Your task to perform on an android device: Empty the shopping cart on newegg.com. Search for "logitech g502" on newegg.com, select the first entry, add it to the cart, then select checkout. Image 0: 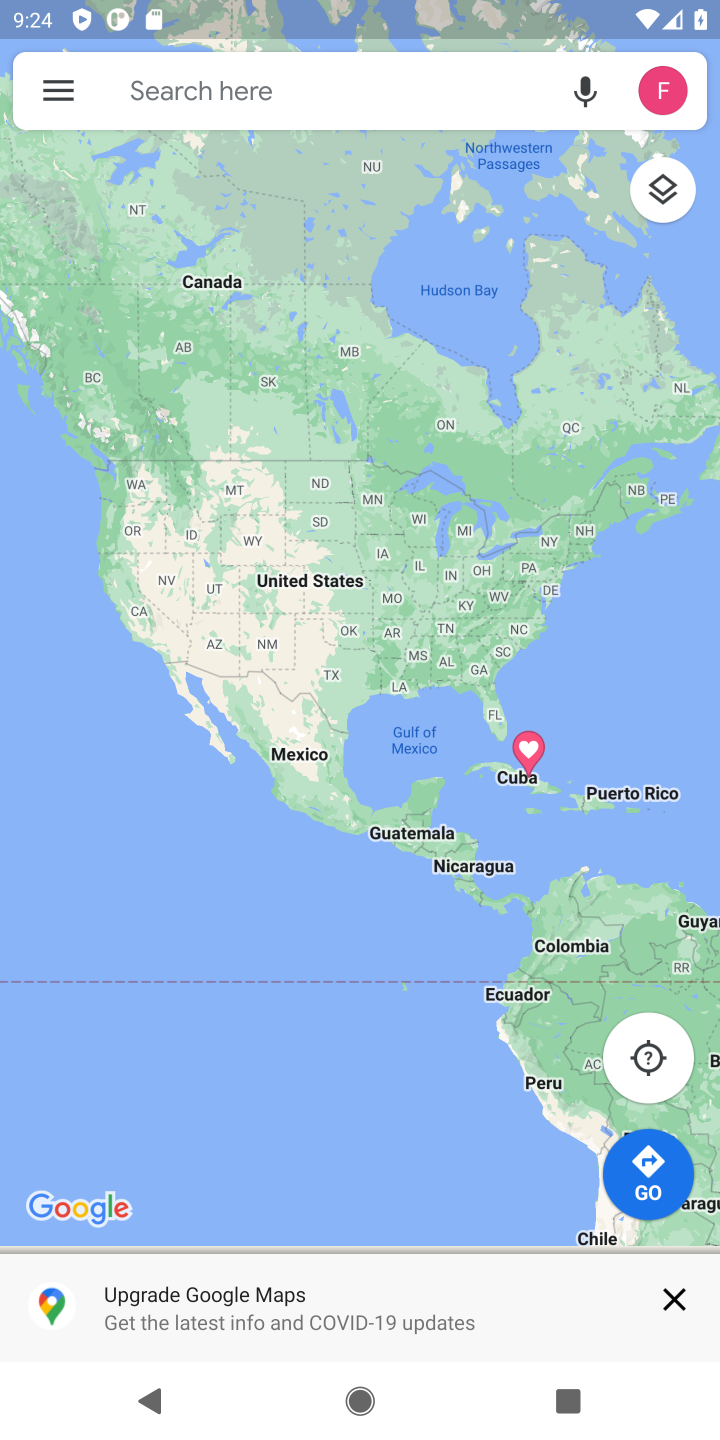
Step 0: press home button
Your task to perform on an android device: Empty the shopping cart on newegg.com. Search for "logitech g502" on newegg.com, select the first entry, add it to the cart, then select checkout. Image 1: 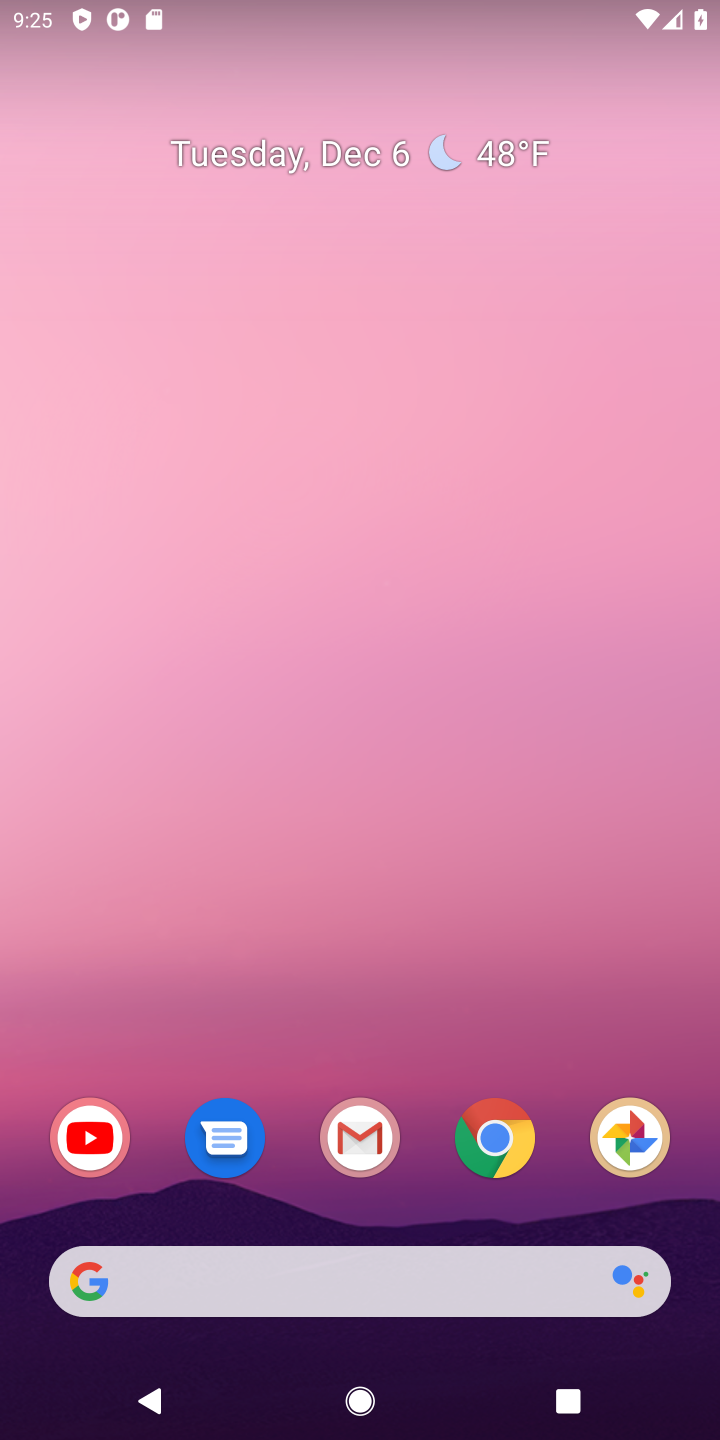
Step 1: click (509, 1142)
Your task to perform on an android device: Empty the shopping cart on newegg.com. Search for "logitech g502" on newegg.com, select the first entry, add it to the cart, then select checkout. Image 2: 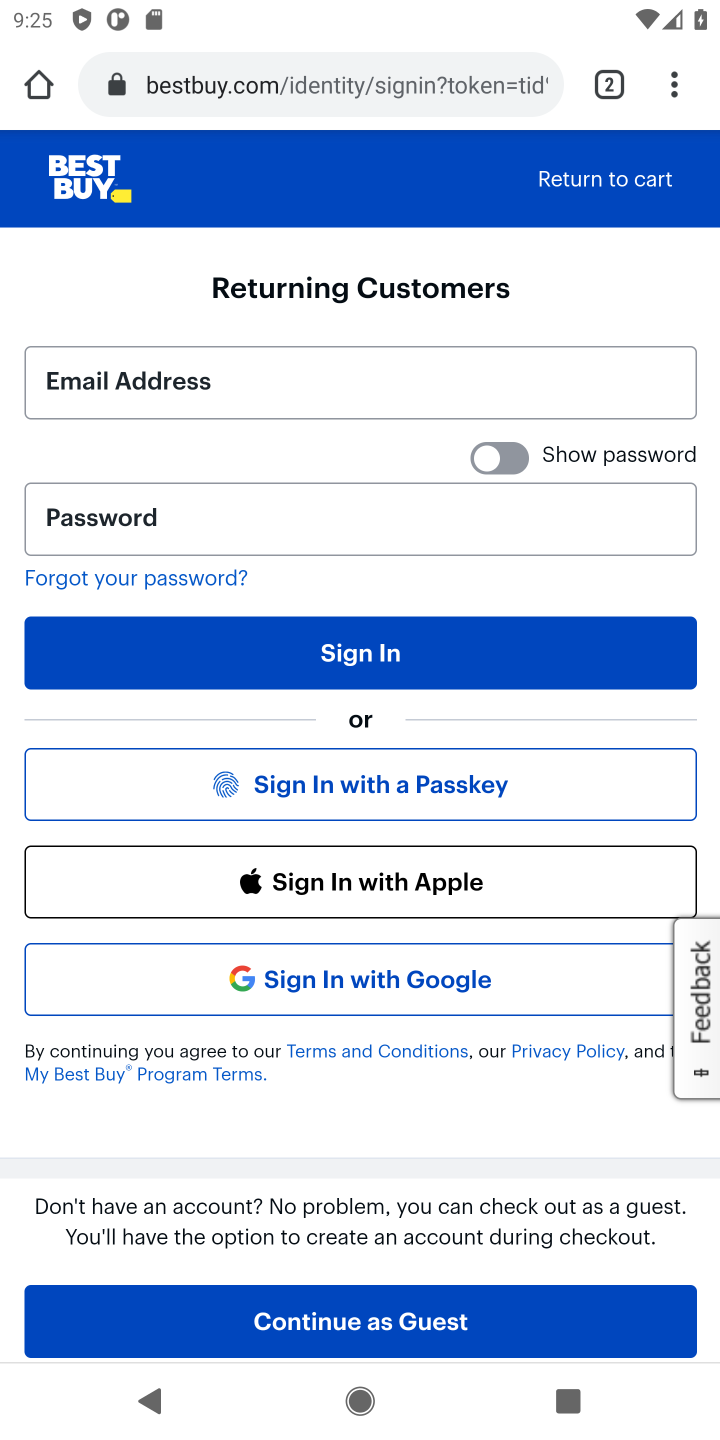
Step 2: click (253, 98)
Your task to perform on an android device: Empty the shopping cart on newegg.com. Search for "logitech g502" on newegg.com, select the first entry, add it to the cart, then select checkout. Image 3: 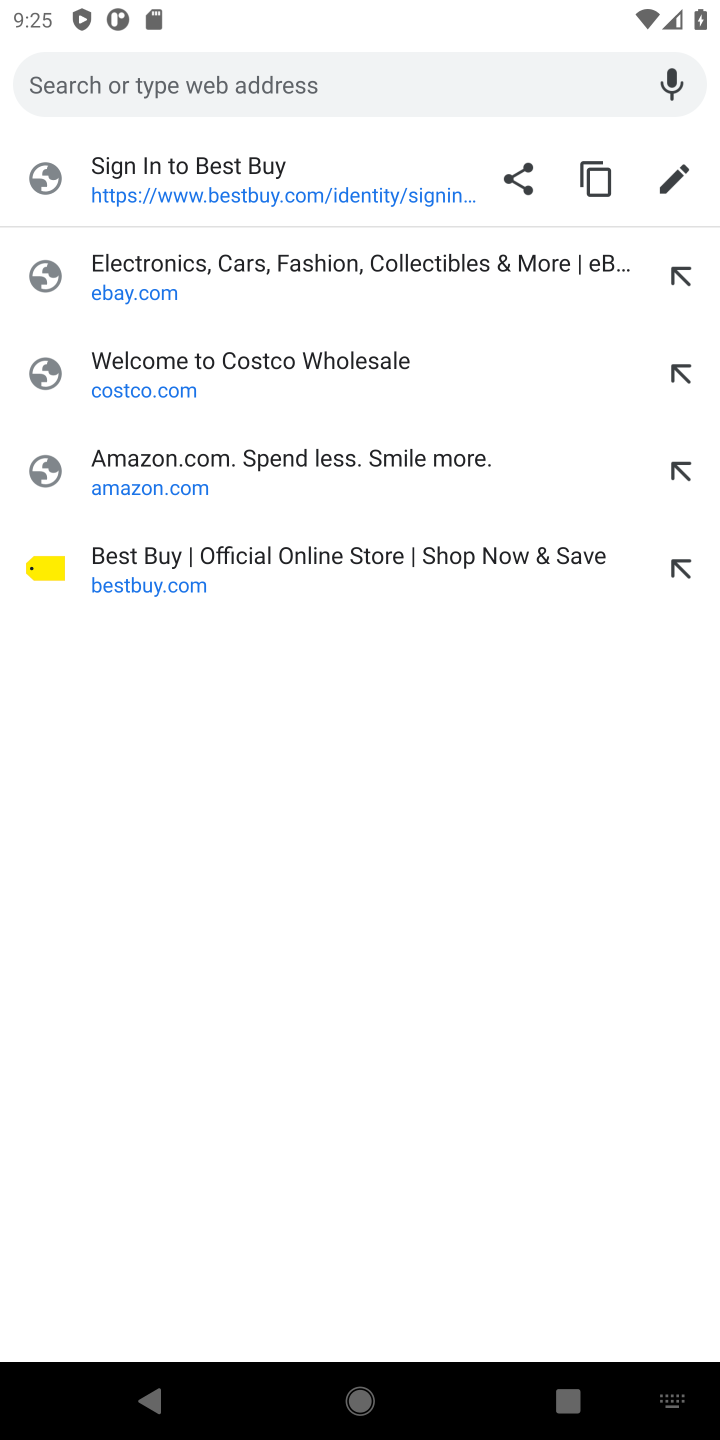
Step 3: type "newegg.com"
Your task to perform on an android device: Empty the shopping cart on newegg.com. Search for "logitech g502" on newegg.com, select the first entry, add it to the cart, then select checkout. Image 4: 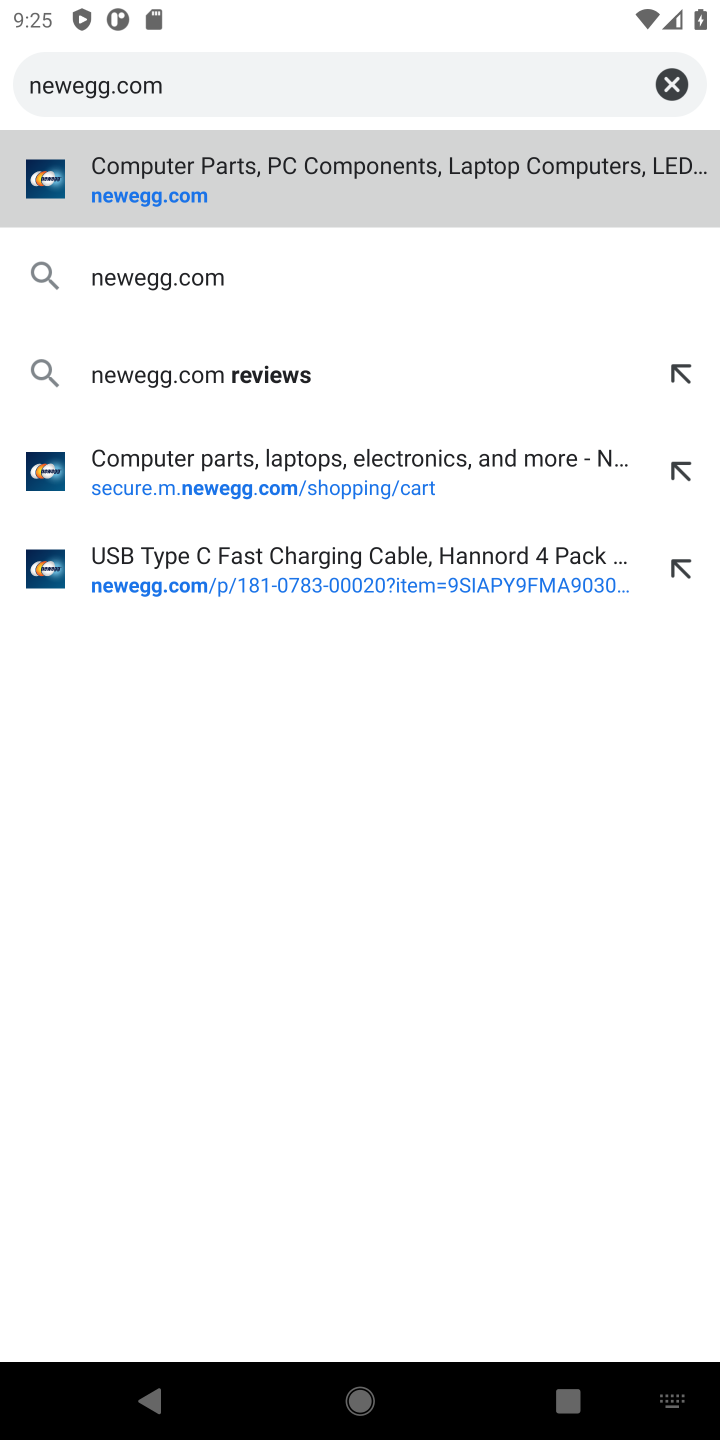
Step 4: click (140, 195)
Your task to perform on an android device: Empty the shopping cart on newegg.com. Search for "logitech g502" on newegg.com, select the first entry, add it to the cart, then select checkout. Image 5: 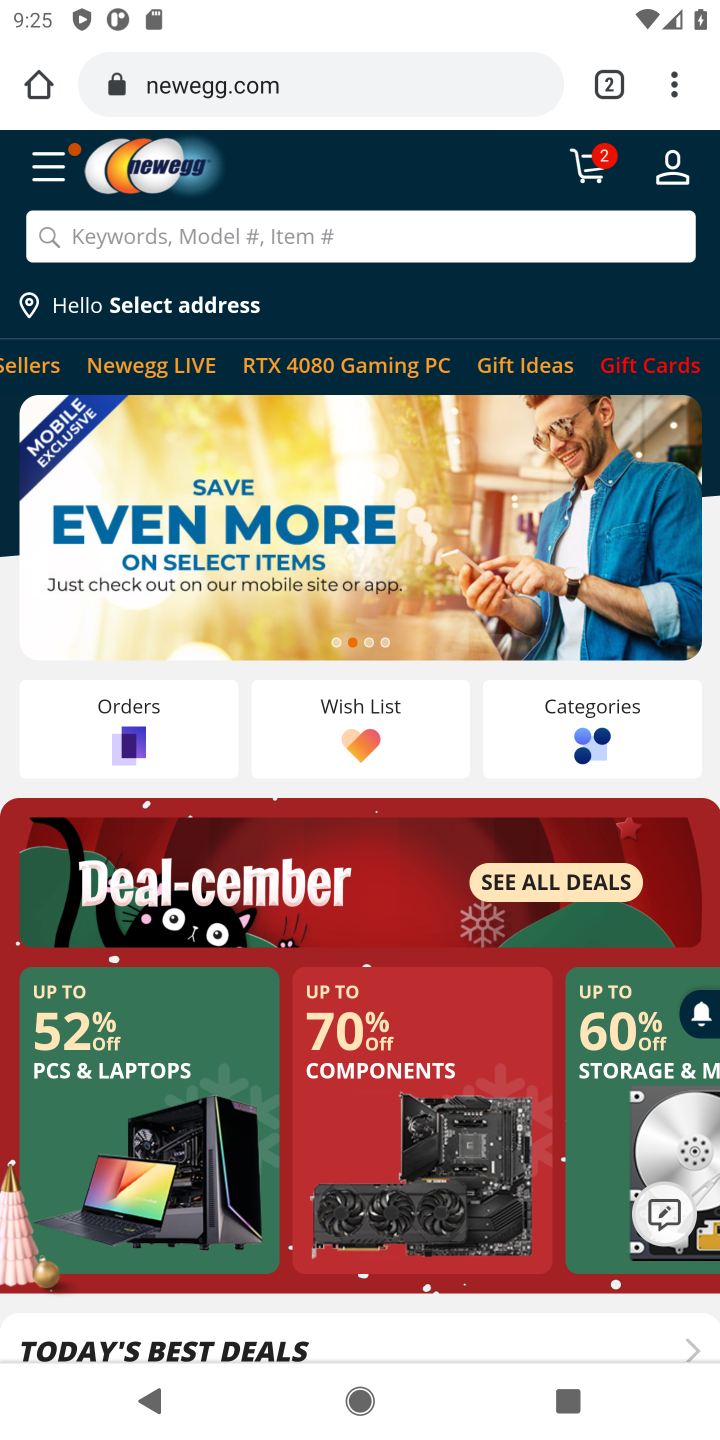
Step 5: click (588, 179)
Your task to perform on an android device: Empty the shopping cart on newegg.com. Search for "logitech g502" on newegg.com, select the first entry, add it to the cart, then select checkout. Image 6: 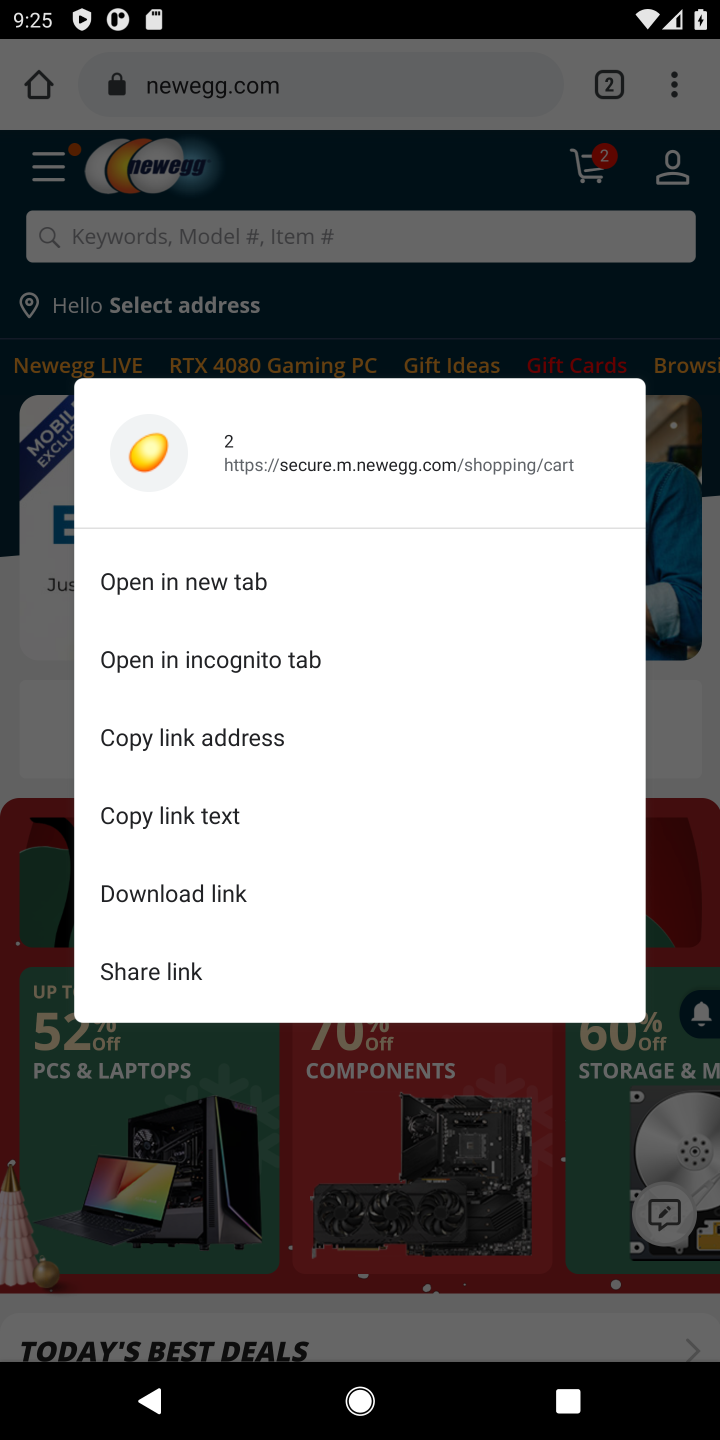
Step 6: click (588, 179)
Your task to perform on an android device: Empty the shopping cart on newegg.com. Search for "logitech g502" on newegg.com, select the first entry, add it to the cart, then select checkout. Image 7: 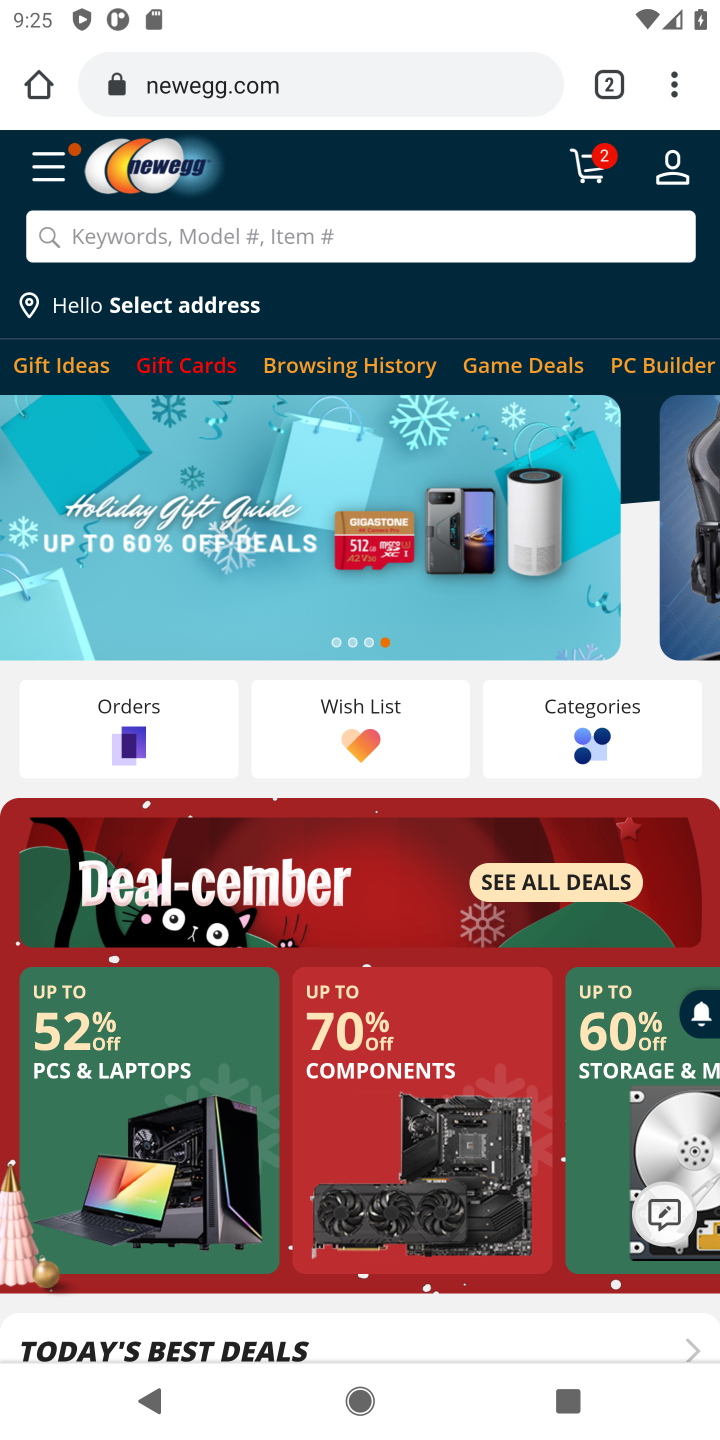
Step 7: click (590, 162)
Your task to perform on an android device: Empty the shopping cart on newegg.com. Search for "logitech g502" on newegg.com, select the first entry, add it to the cart, then select checkout. Image 8: 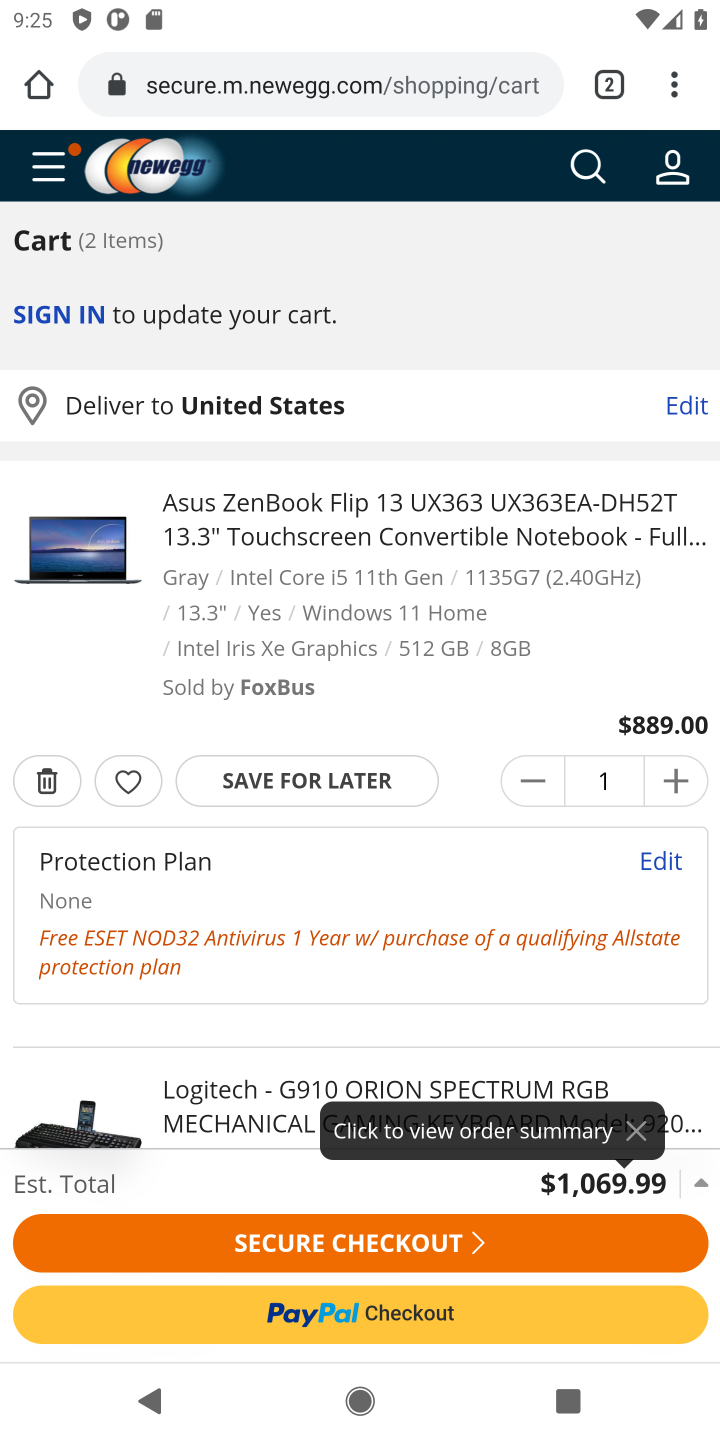
Step 8: click (45, 784)
Your task to perform on an android device: Empty the shopping cart on newegg.com. Search for "logitech g502" on newegg.com, select the first entry, add it to the cart, then select checkout. Image 9: 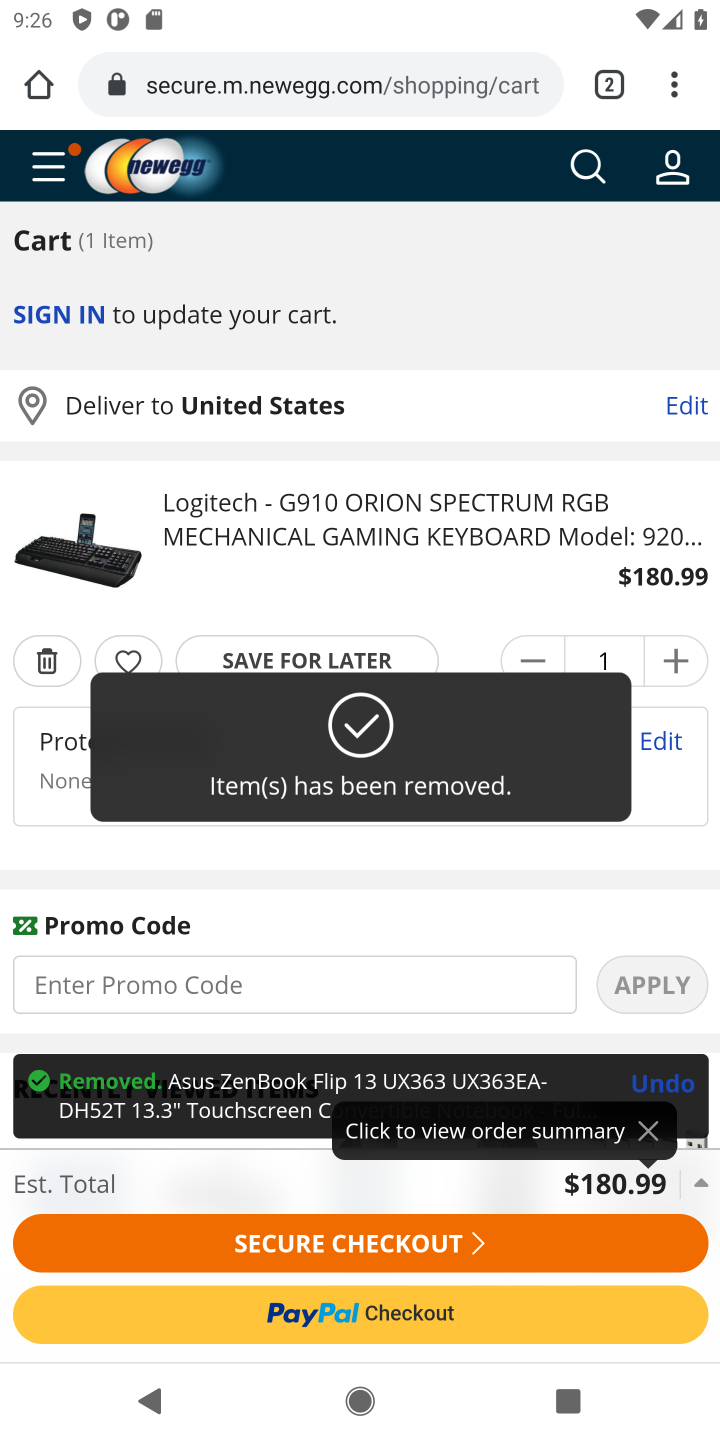
Step 9: click (52, 675)
Your task to perform on an android device: Empty the shopping cart on newegg.com. Search for "logitech g502" on newegg.com, select the first entry, add it to the cart, then select checkout. Image 10: 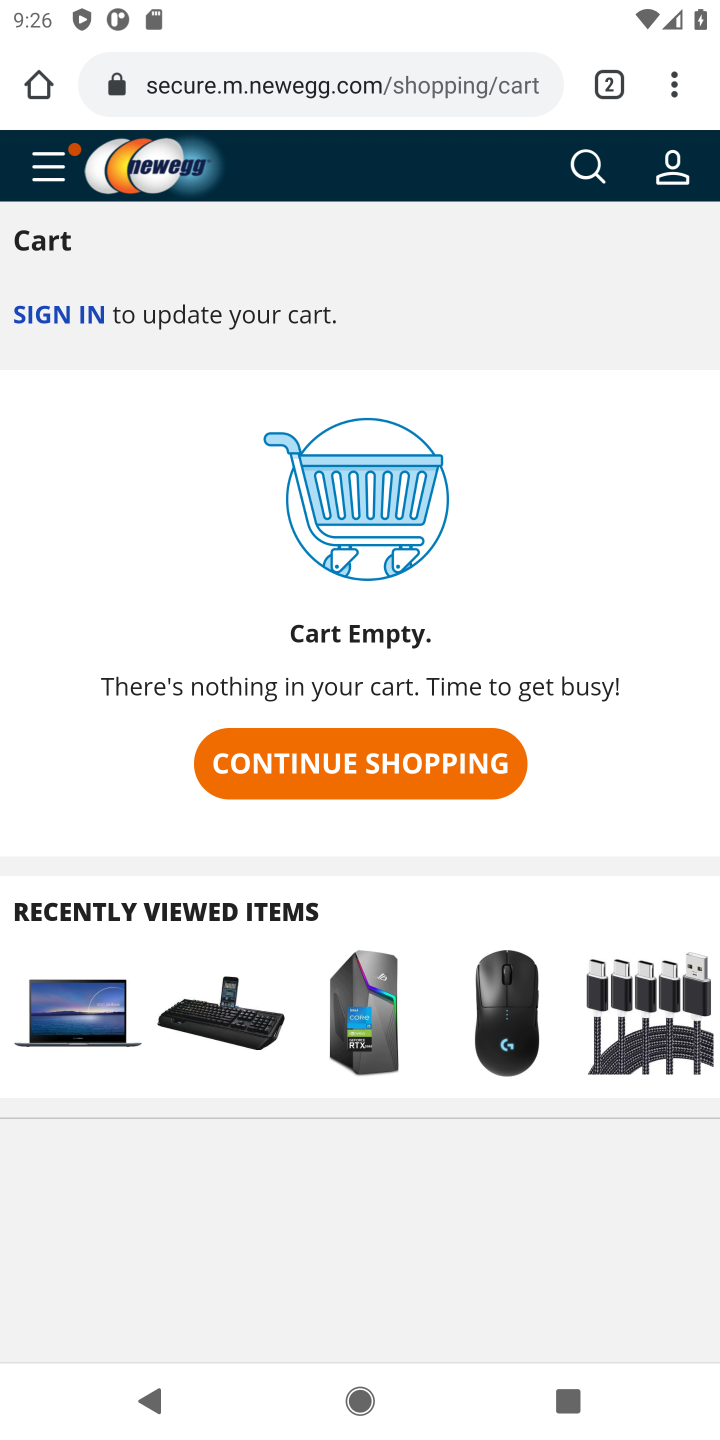
Step 10: click (595, 169)
Your task to perform on an android device: Empty the shopping cart on newegg.com. Search for "logitech g502" on newegg.com, select the first entry, add it to the cart, then select checkout. Image 11: 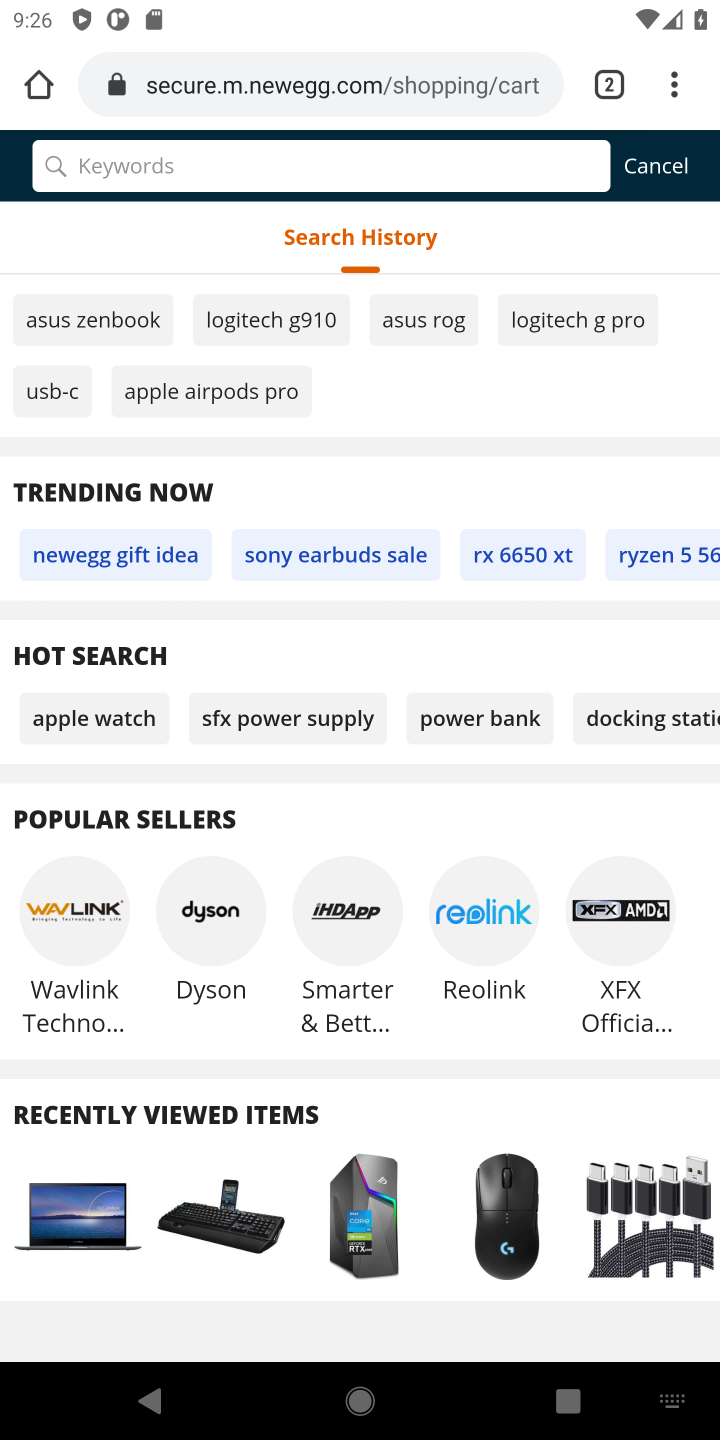
Step 11: type "logitech g502"
Your task to perform on an android device: Empty the shopping cart on newegg.com. Search for "logitech g502" on newegg.com, select the first entry, add it to the cart, then select checkout. Image 12: 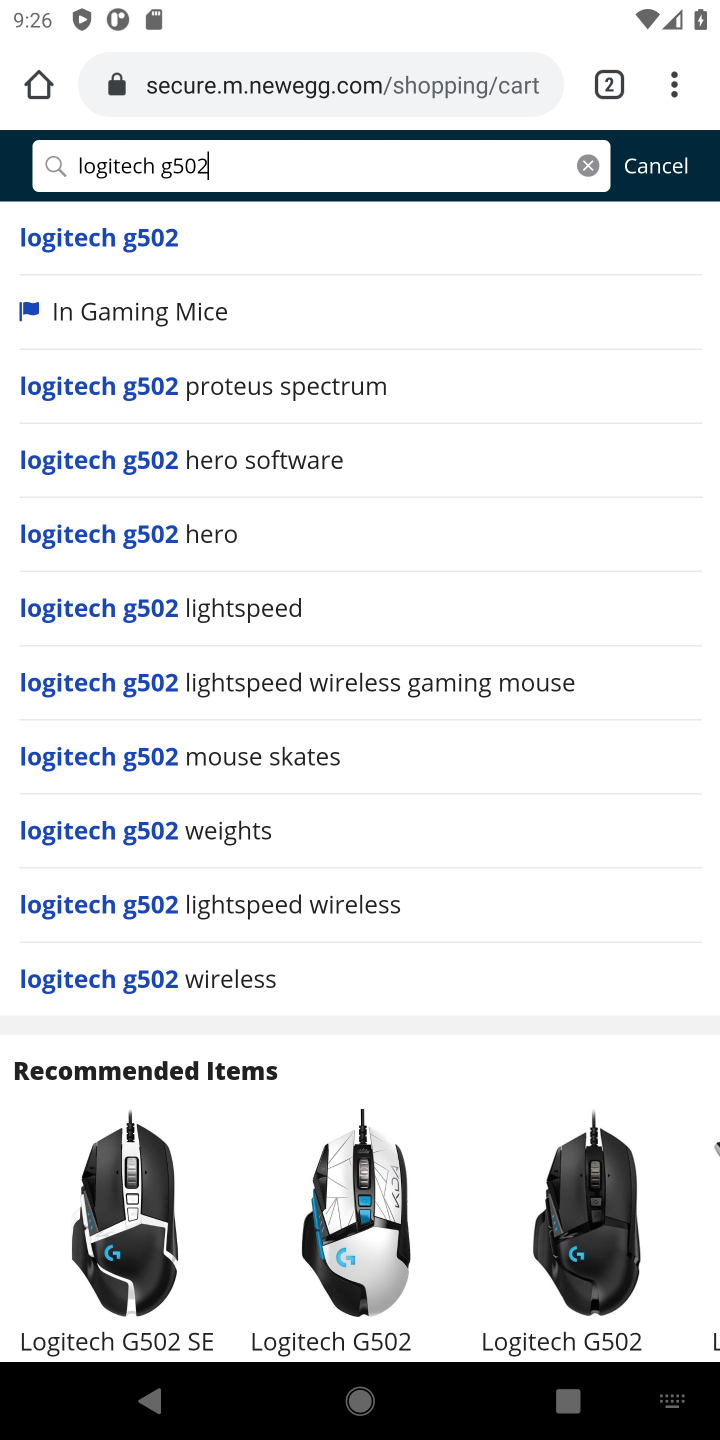
Step 12: click (108, 253)
Your task to perform on an android device: Empty the shopping cart on newegg.com. Search for "logitech g502" on newegg.com, select the first entry, add it to the cart, then select checkout. Image 13: 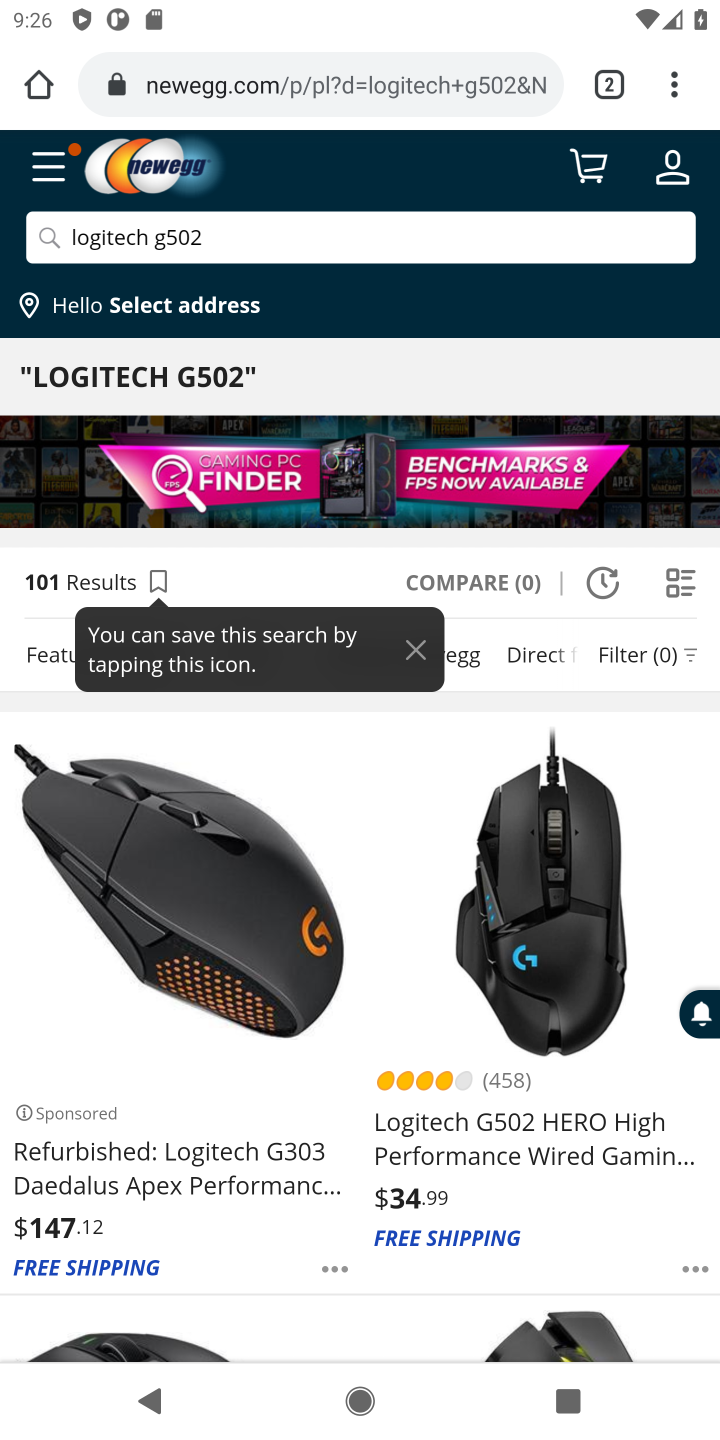
Step 13: task complete